Your task to perform on an android device: Search for pizza restaurants on Maps Image 0: 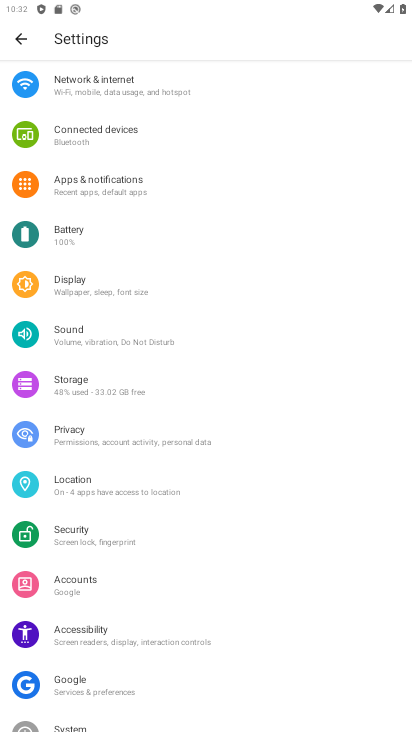
Step 0: press home button
Your task to perform on an android device: Search for pizza restaurants on Maps Image 1: 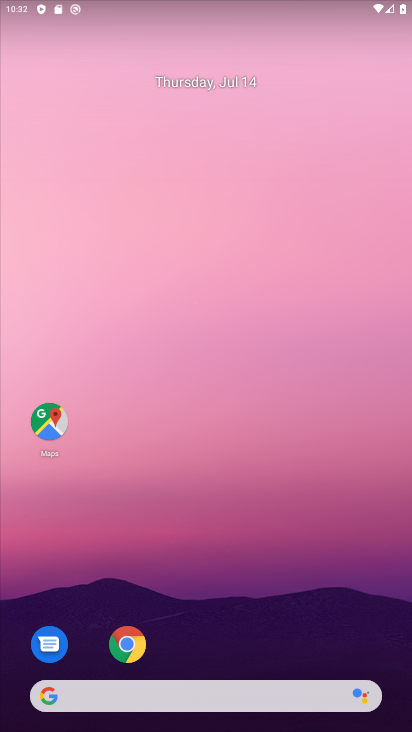
Step 1: click (56, 425)
Your task to perform on an android device: Search for pizza restaurants on Maps Image 2: 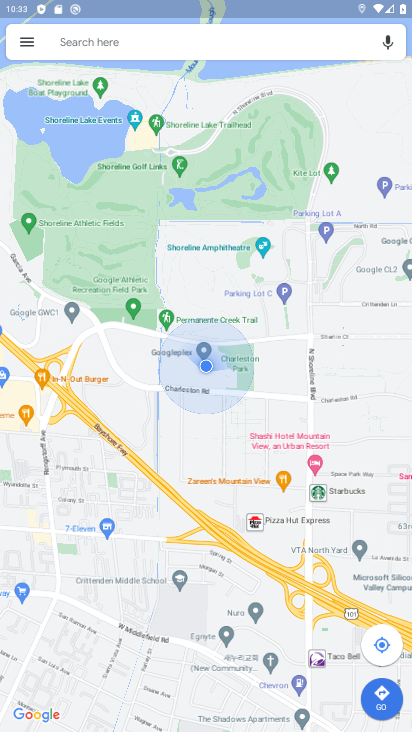
Step 2: click (140, 46)
Your task to perform on an android device: Search for pizza restaurants on Maps Image 3: 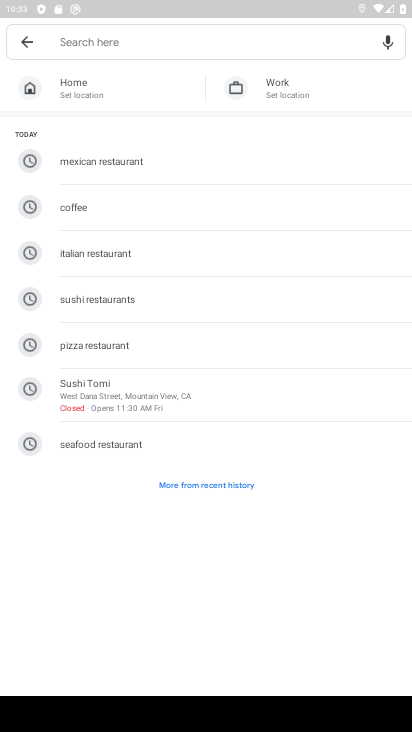
Step 3: click (119, 346)
Your task to perform on an android device: Search for pizza restaurants on Maps Image 4: 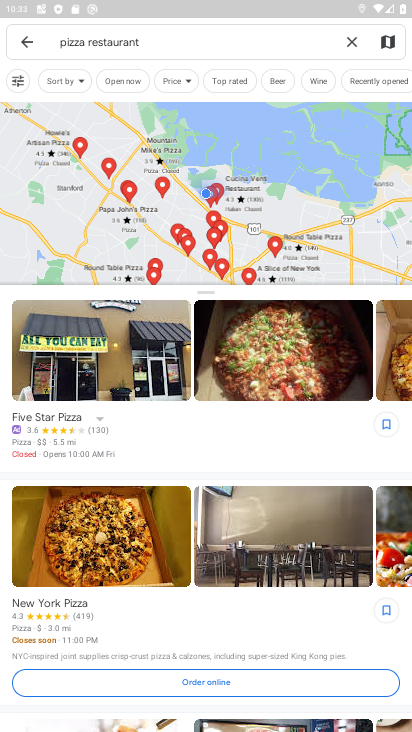
Step 4: task complete